Your task to perform on an android device: read, delete, or share a saved page in the chrome app Image 0: 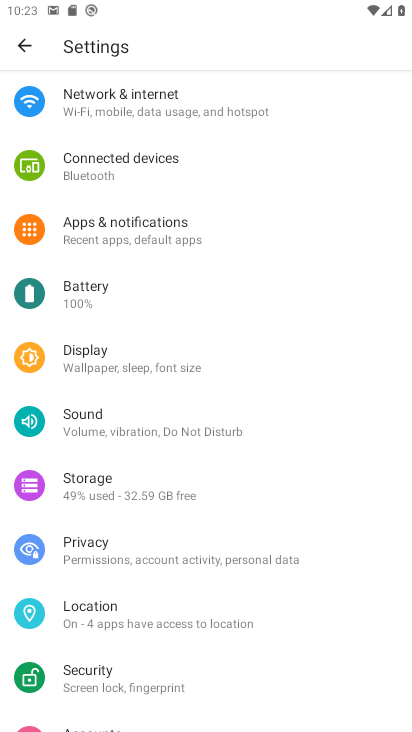
Step 0: press home button
Your task to perform on an android device: read, delete, or share a saved page in the chrome app Image 1: 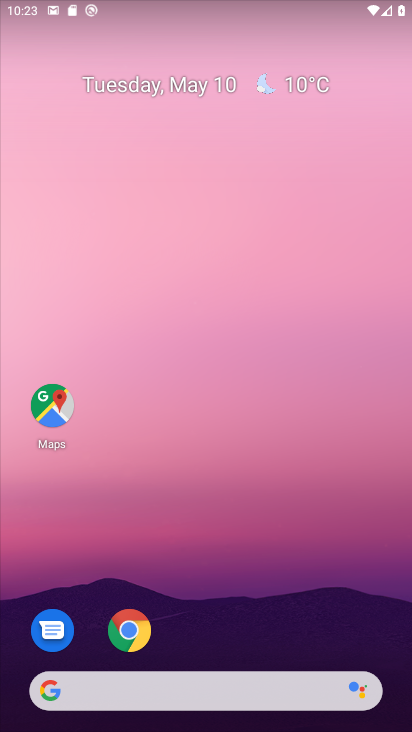
Step 1: click (132, 618)
Your task to perform on an android device: read, delete, or share a saved page in the chrome app Image 2: 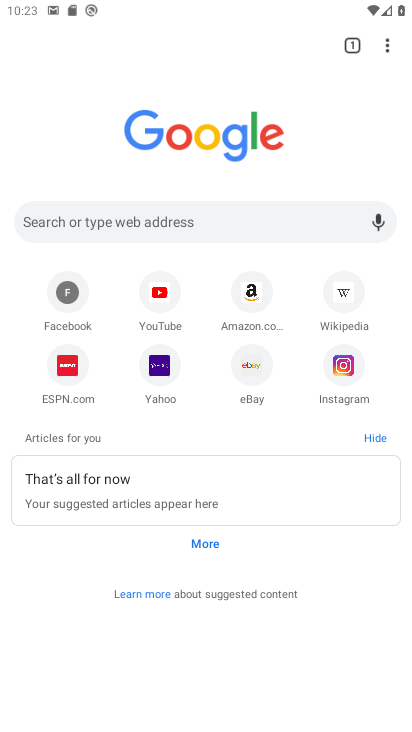
Step 2: click (386, 46)
Your task to perform on an android device: read, delete, or share a saved page in the chrome app Image 3: 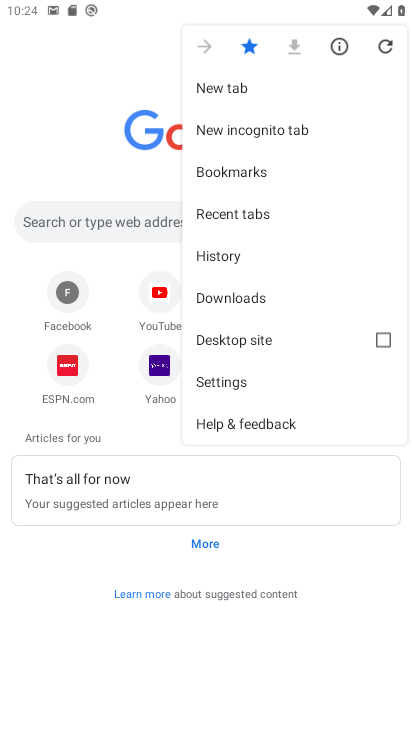
Step 3: click (221, 292)
Your task to perform on an android device: read, delete, or share a saved page in the chrome app Image 4: 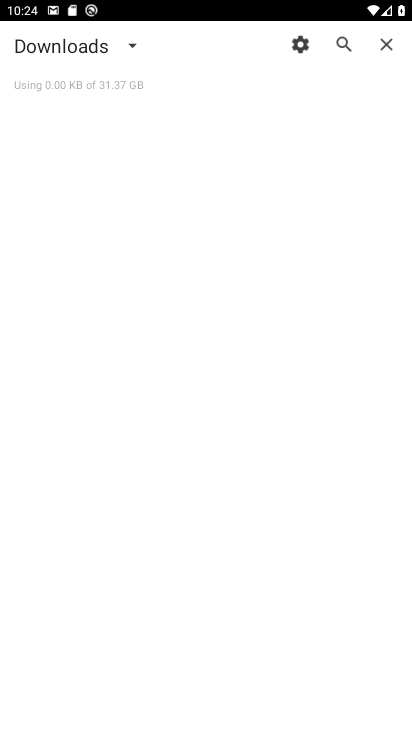
Step 4: click (137, 44)
Your task to perform on an android device: read, delete, or share a saved page in the chrome app Image 5: 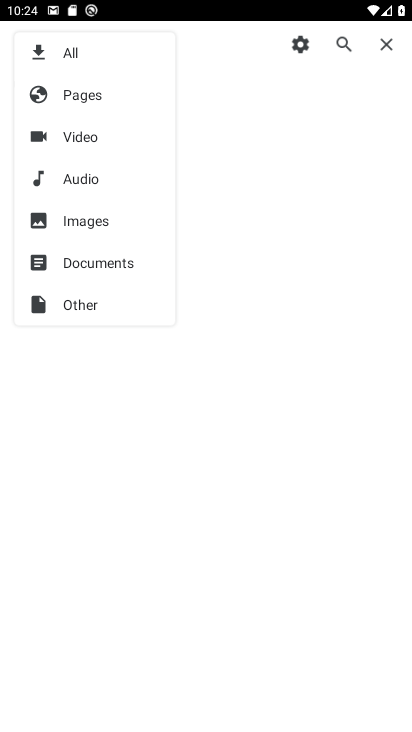
Step 5: click (102, 90)
Your task to perform on an android device: read, delete, or share a saved page in the chrome app Image 6: 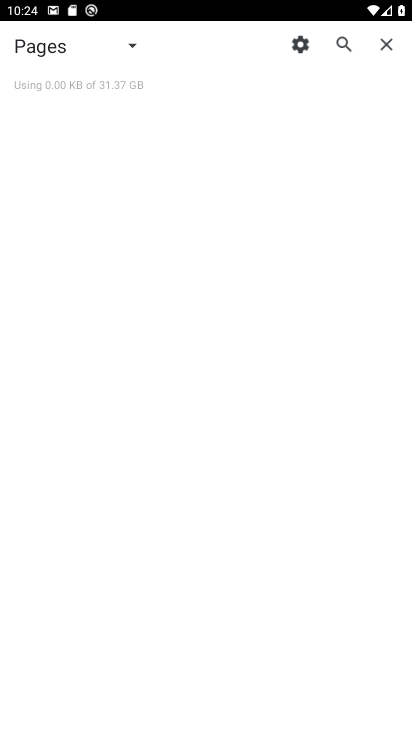
Step 6: task complete